Your task to perform on an android device: open chrome and create a bookmark for the current page Image 0: 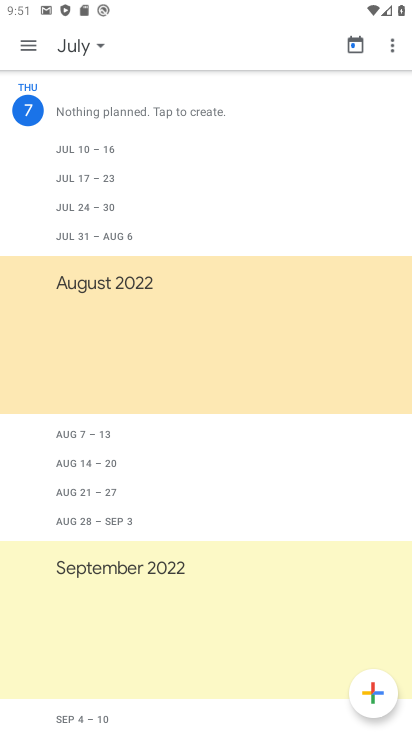
Step 0: press home button
Your task to perform on an android device: open chrome and create a bookmark for the current page Image 1: 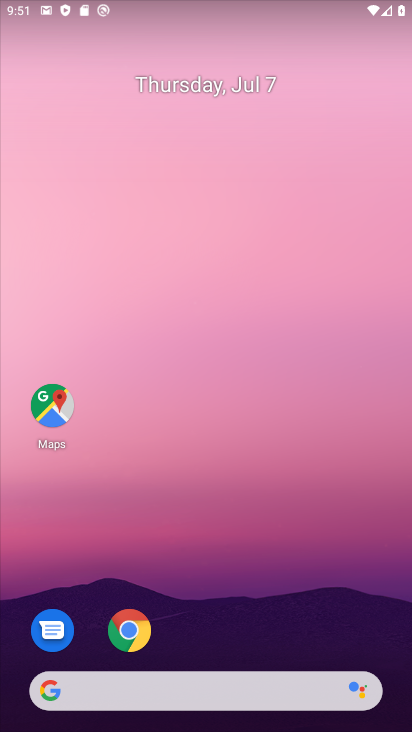
Step 1: click (139, 637)
Your task to perform on an android device: open chrome and create a bookmark for the current page Image 2: 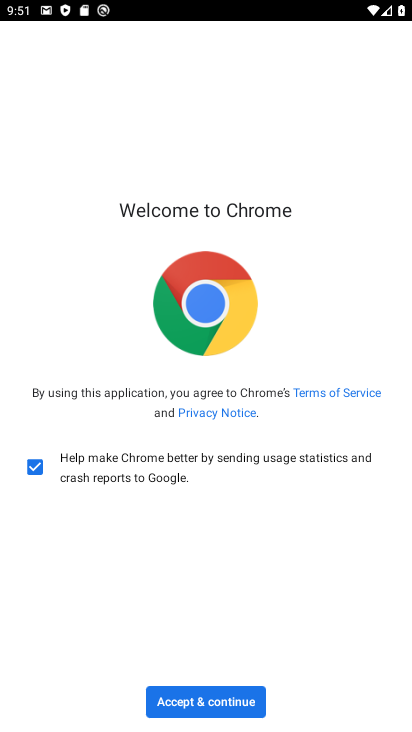
Step 2: click (191, 699)
Your task to perform on an android device: open chrome and create a bookmark for the current page Image 3: 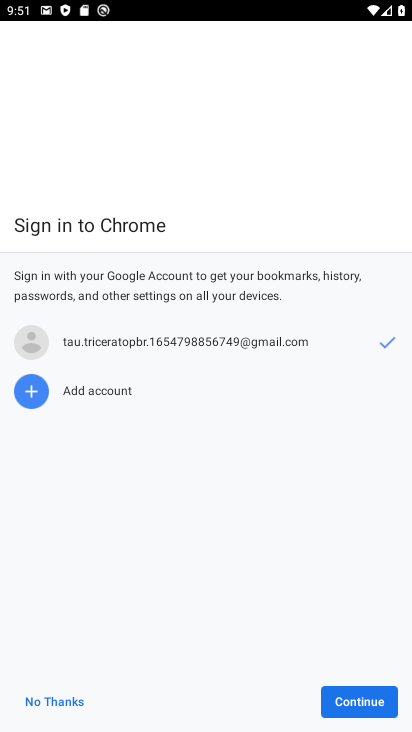
Step 3: click (349, 700)
Your task to perform on an android device: open chrome and create a bookmark for the current page Image 4: 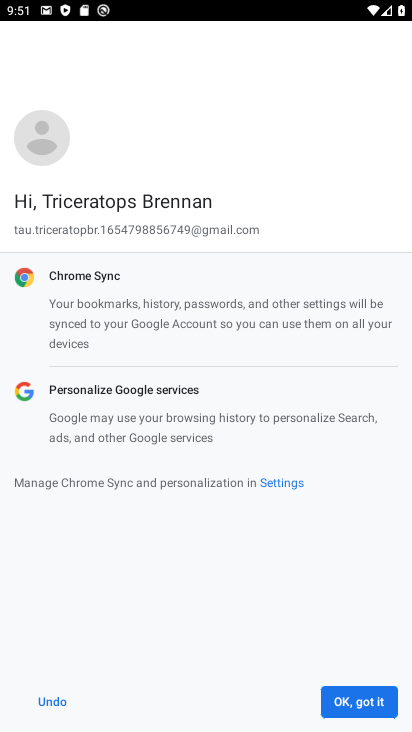
Step 4: click (334, 705)
Your task to perform on an android device: open chrome and create a bookmark for the current page Image 5: 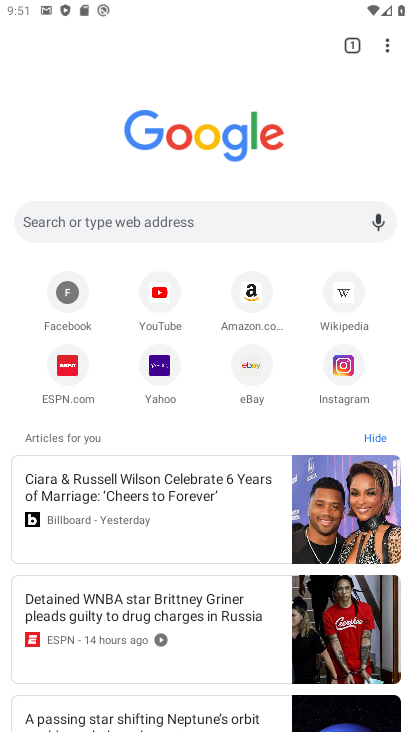
Step 5: click (390, 42)
Your task to perform on an android device: open chrome and create a bookmark for the current page Image 6: 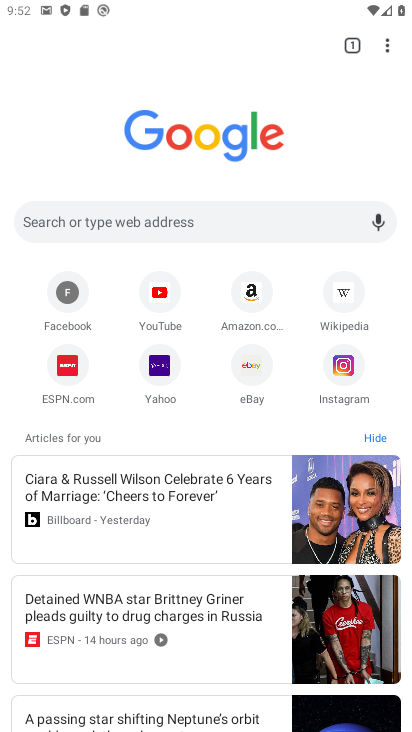
Step 6: click (380, 47)
Your task to perform on an android device: open chrome and create a bookmark for the current page Image 7: 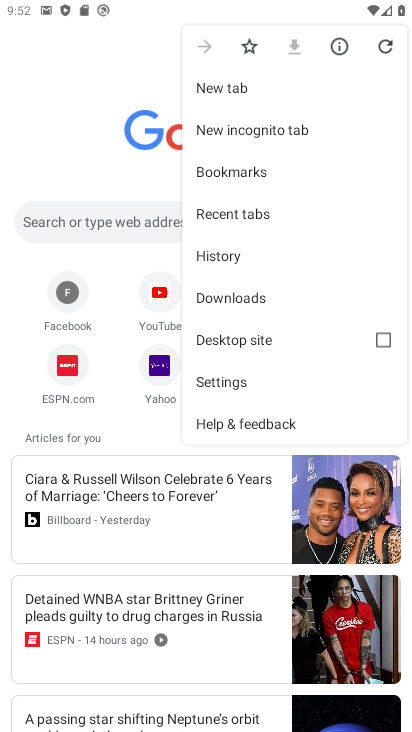
Step 7: click (249, 46)
Your task to perform on an android device: open chrome and create a bookmark for the current page Image 8: 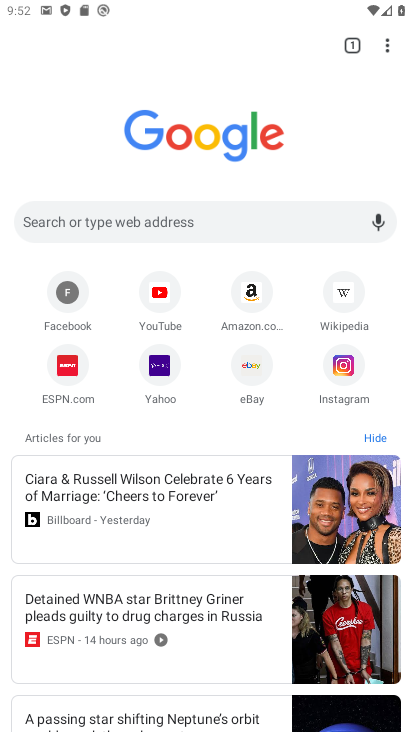
Step 8: task complete